Your task to perform on an android device: Open Google Chrome and open the bookmarks view Image 0: 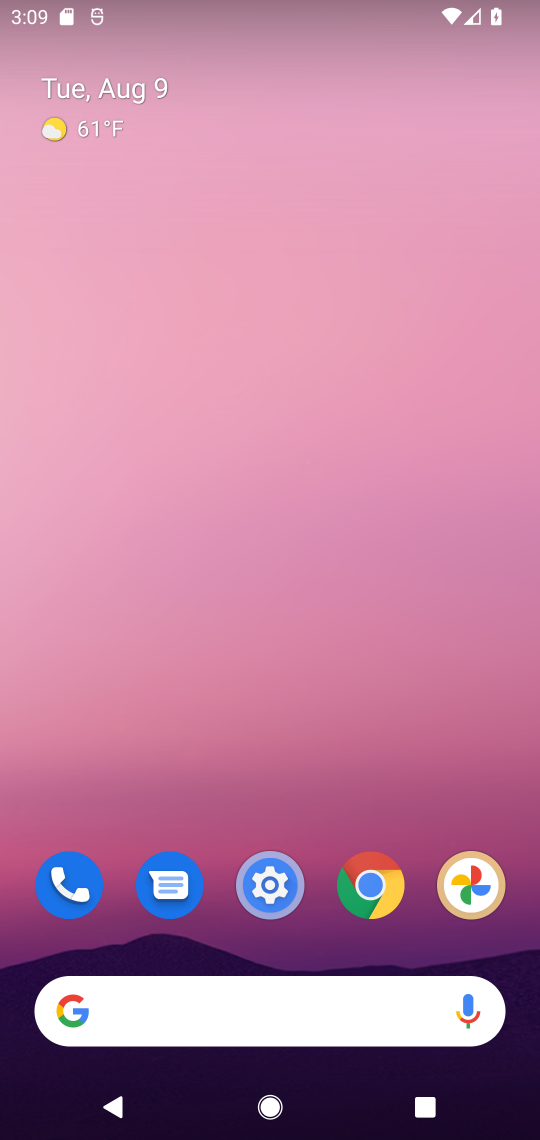
Step 0: drag from (347, 271) to (348, 91)
Your task to perform on an android device: Open Google Chrome and open the bookmarks view Image 1: 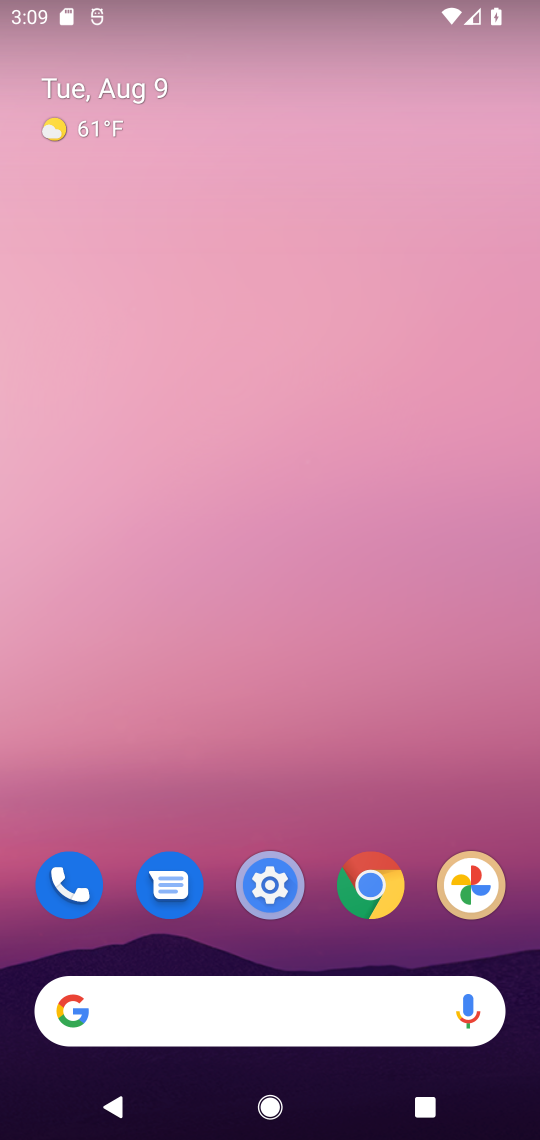
Step 1: click (383, 896)
Your task to perform on an android device: Open Google Chrome and open the bookmarks view Image 2: 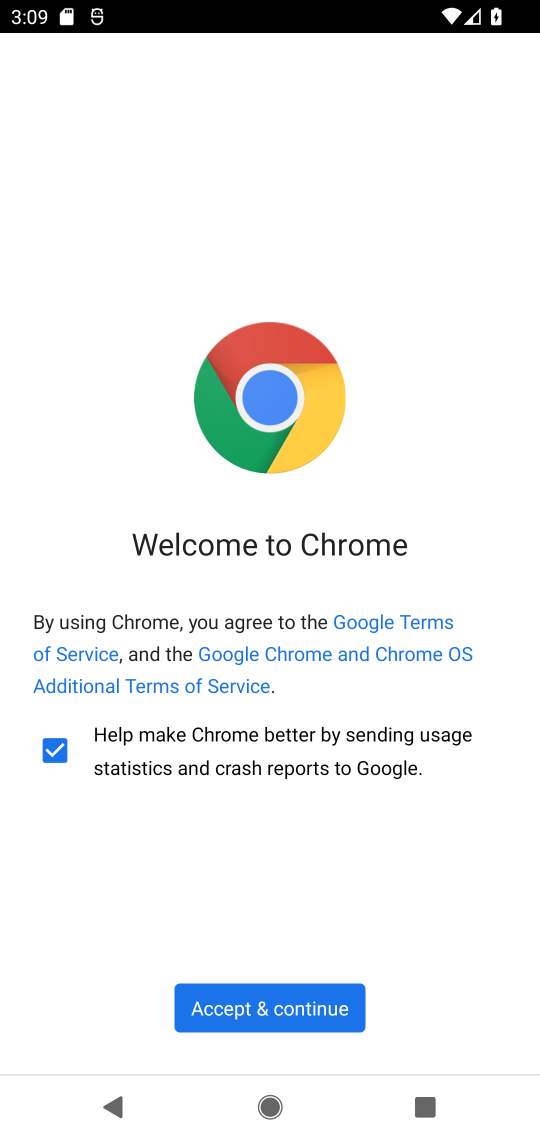
Step 2: click (282, 1012)
Your task to perform on an android device: Open Google Chrome and open the bookmarks view Image 3: 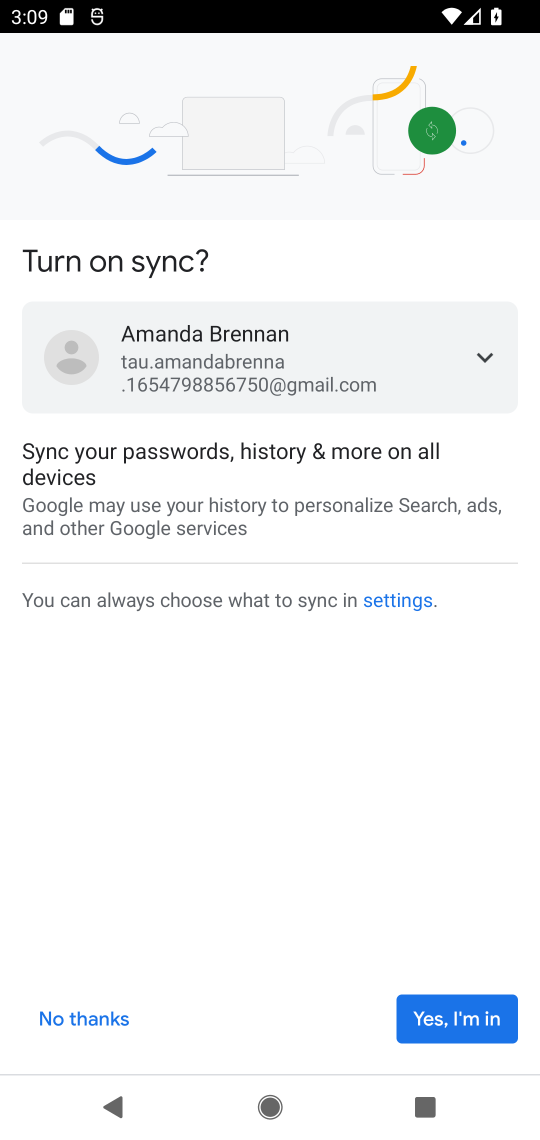
Step 3: click (109, 1016)
Your task to perform on an android device: Open Google Chrome and open the bookmarks view Image 4: 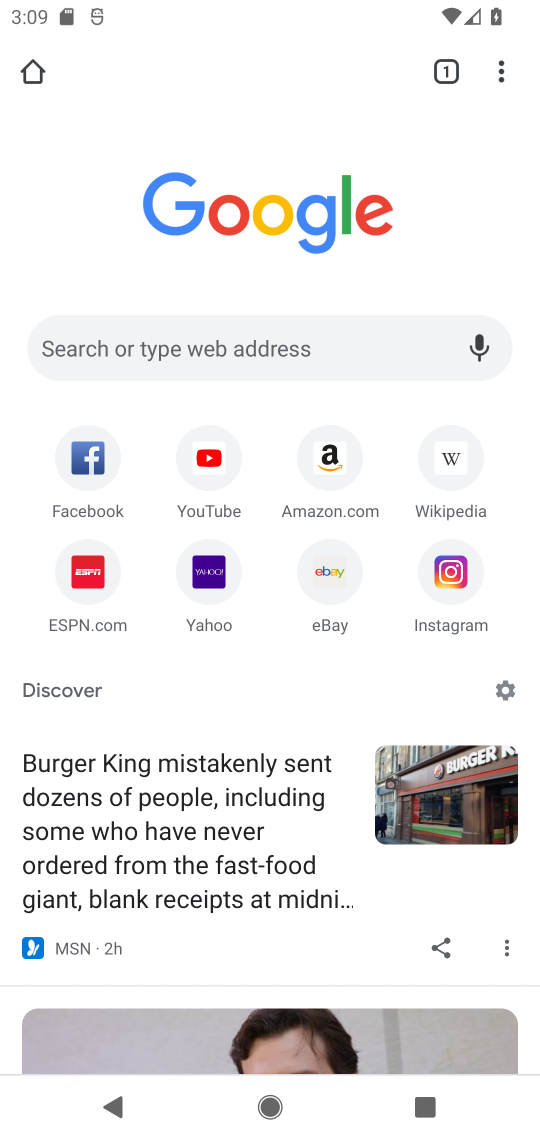
Step 4: click (497, 77)
Your task to perform on an android device: Open Google Chrome and open the bookmarks view Image 5: 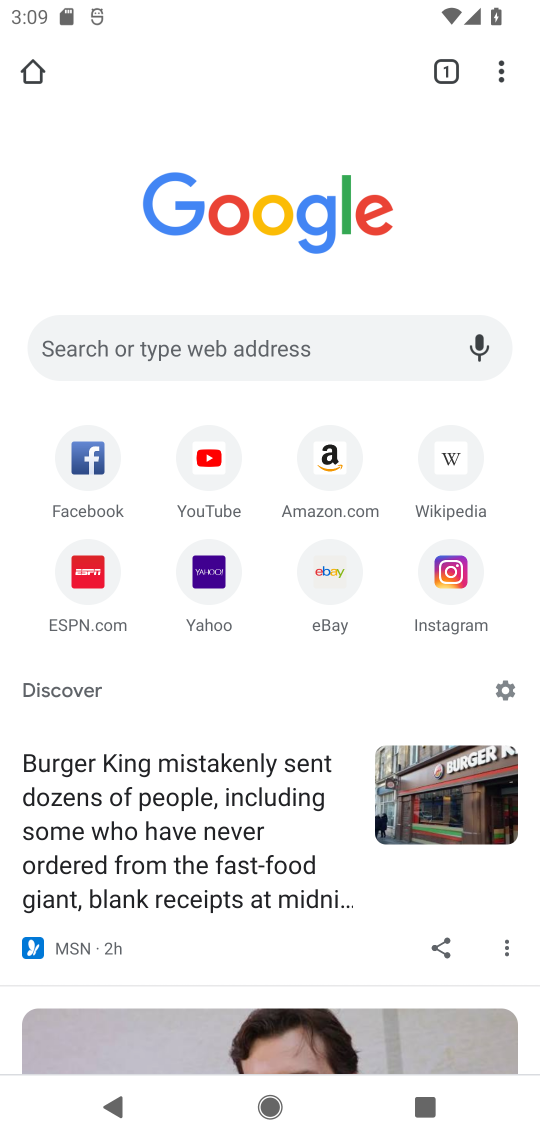
Step 5: click (518, 78)
Your task to perform on an android device: Open Google Chrome and open the bookmarks view Image 6: 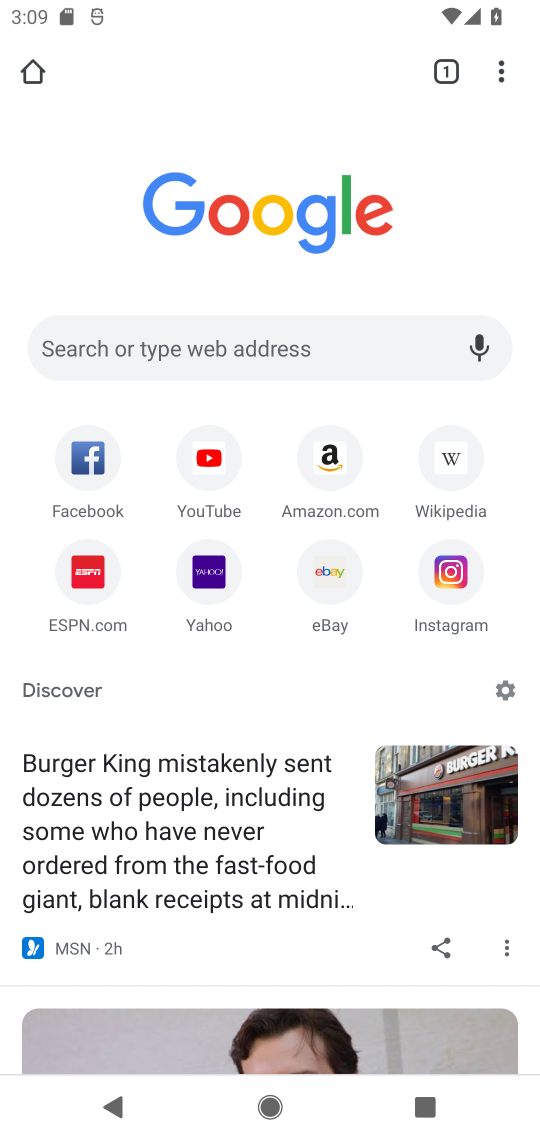
Step 6: click (512, 81)
Your task to perform on an android device: Open Google Chrome and open the bookmarks view Image 7: 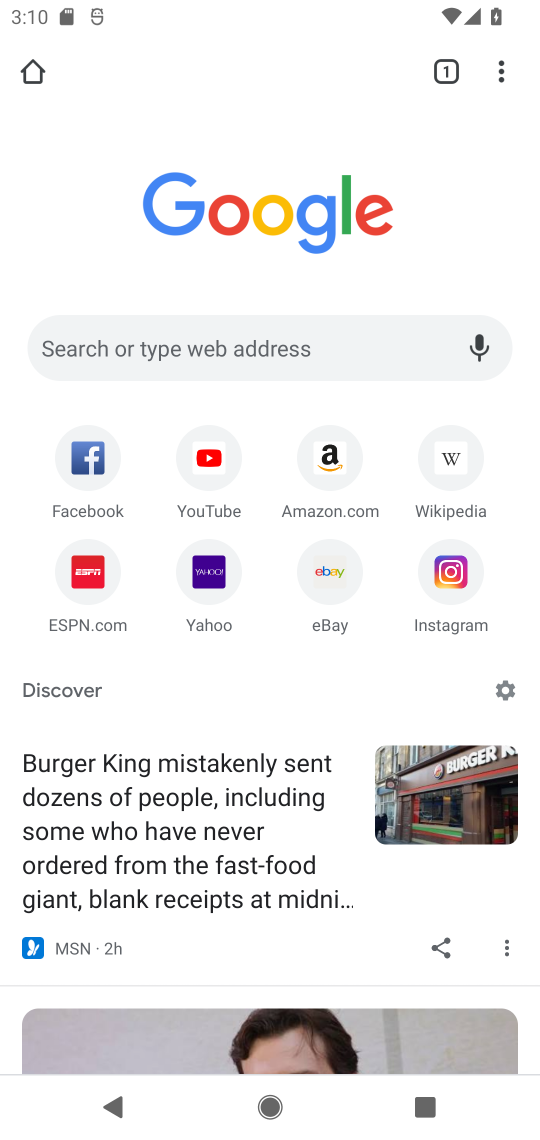
Step 7: task complete